Your task to perform on an android device: Is it going to rain today? Image 0: 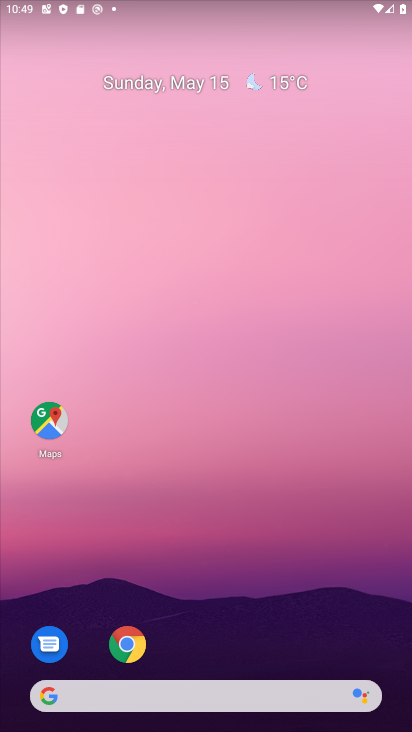
Step 0: drag from (137, 618) to (137, 212)
Your task to perform on an android device: Is it going to rain today? Image 1: 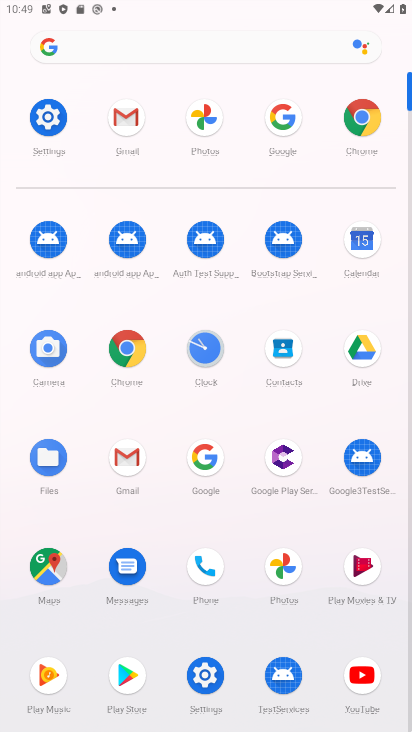
Step 1: click (216, 449)
Your task to perform on an android device: Is it going to rain today? Image 2: 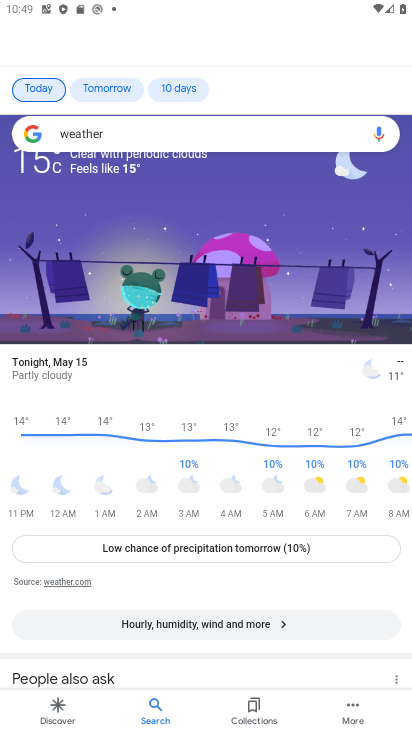
Step 2: click (198, 626)
Your task to perform on an android device: Is it going to rain today? Image 3: 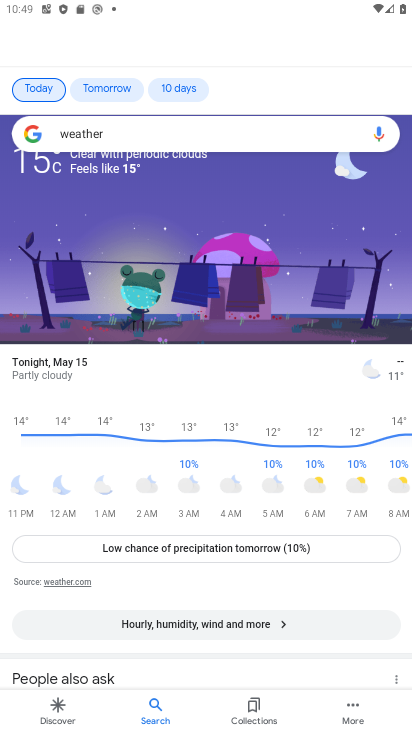
Step 3: click (232, 625)
Your task to perform on an android device: Is it going to rain today? Image 4: 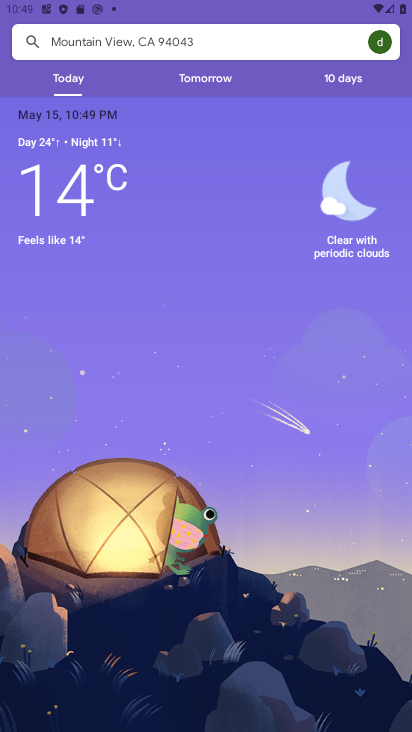
Step 4: task complete